Your task to perform on an android device: change alarm snooze length Image 0: 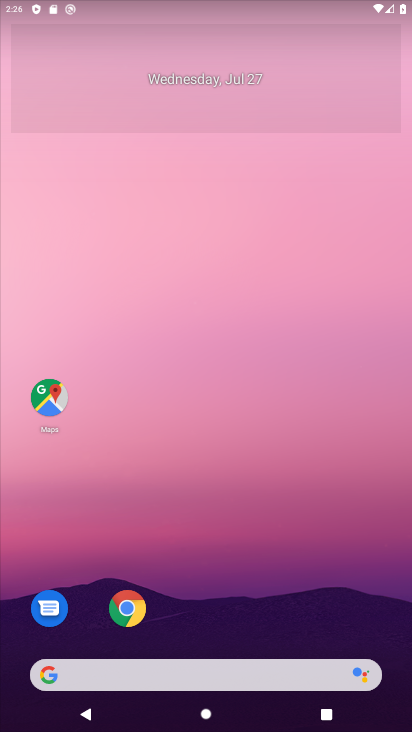
Step 0: drag from (276, 436) to (300, 72)
Your task to perform on an android device: change alarm snooze length Image 1: 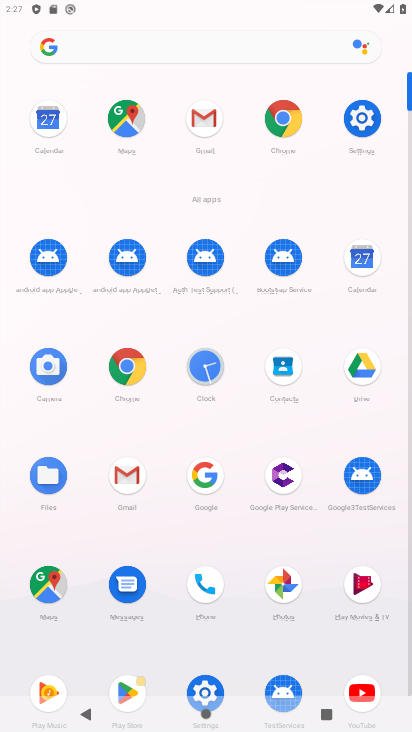
Step 1: click (130, 474)
Your task to perform on an android device: change alarm snooze length Image 2: 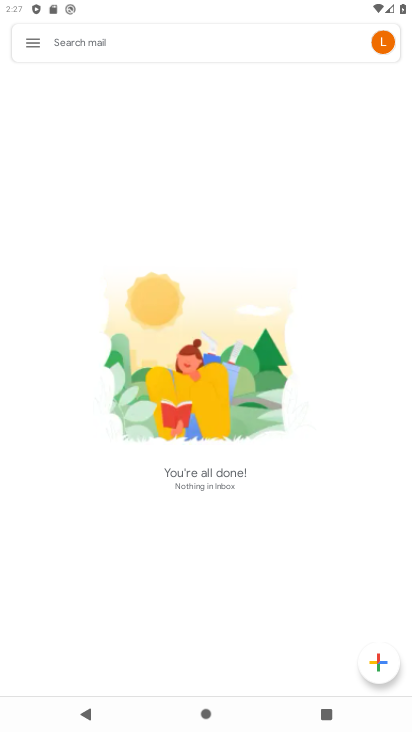
Step 2: click (41, 38)
Your task to perform on an android device: change alarm snooze length Image 3: 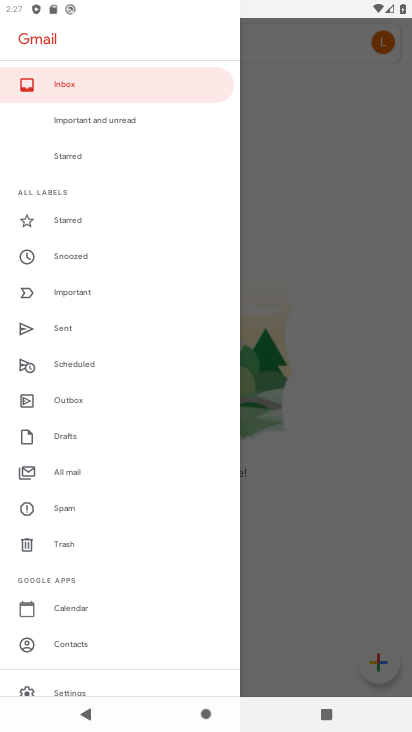
Step 3: press home button
Your task to perform on an android device: change alarm snooze length Image 4: 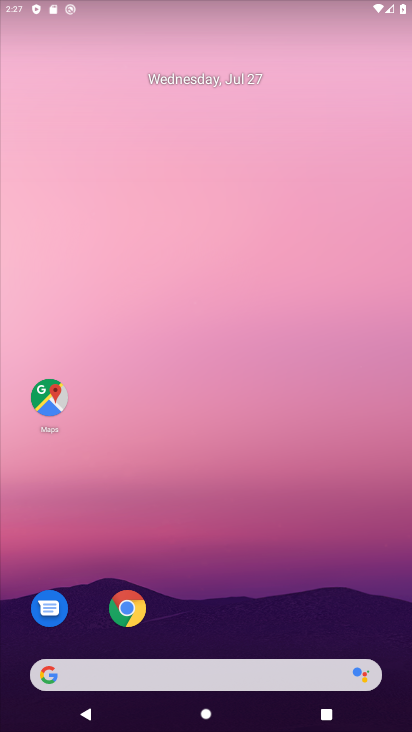
Step 4: drag from (257, 554) to (249, 116)
Your task to perform on an android device: change alarm snooze length Image 5: 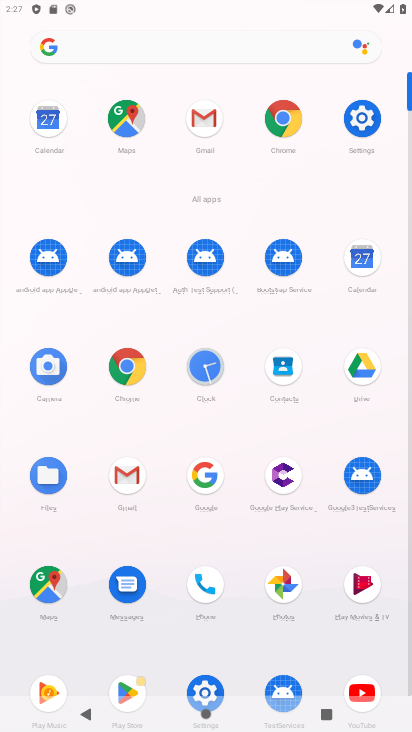
Step 5: click (212, 366)
Your task to perform on an android device: change alarm snooze length Image 6: 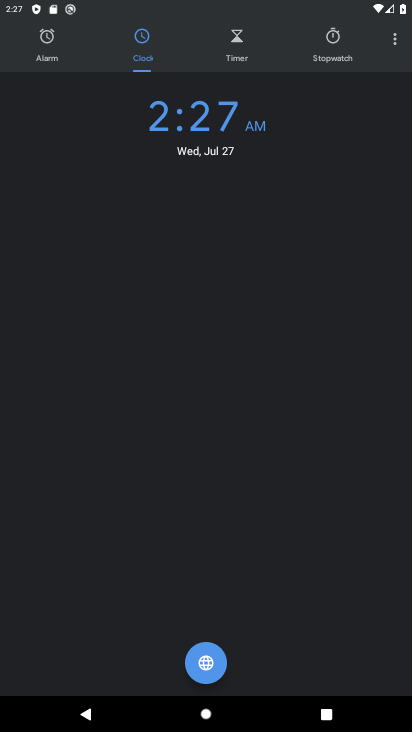
Step 6: click (396, 41)
Your task to perform on an android device: change alarm snooze length Image 7: 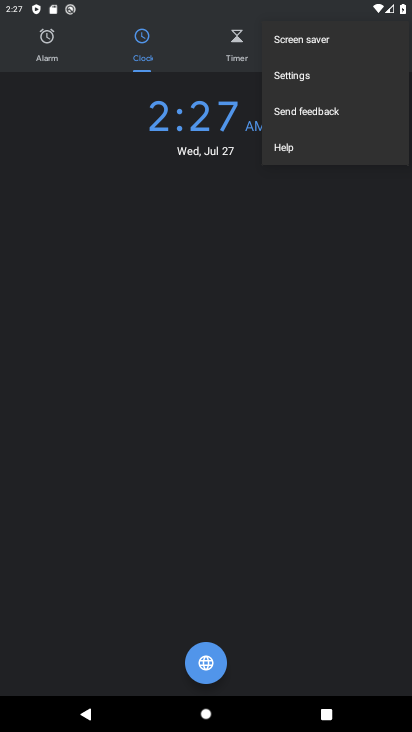
Step 7: click (293, 73)
Your task to perform on an android device: change alarm snooze length Image 8: 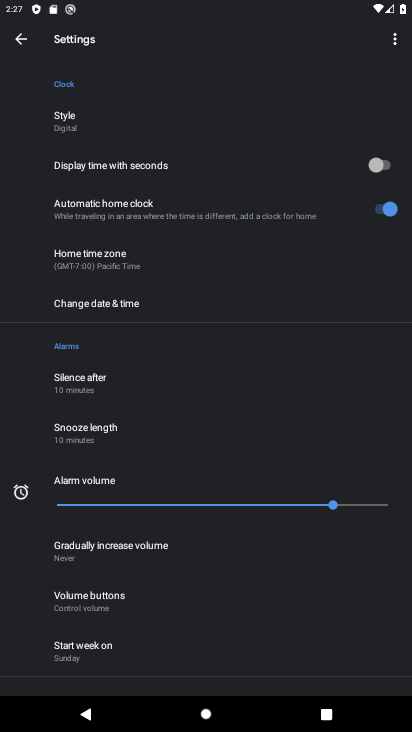
Step 8: click (81, 433)
Your task to perform on an android device: change alarm snooze length Image 9: 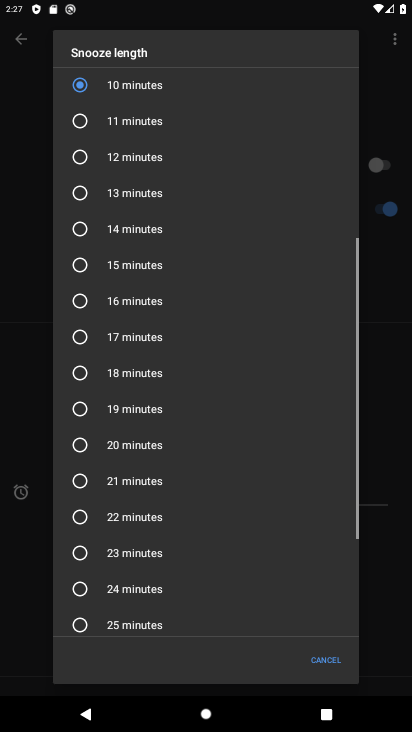
Step 9: click (86, 436)
Your task to perform on an android device: change alarm snooze length Image 10: 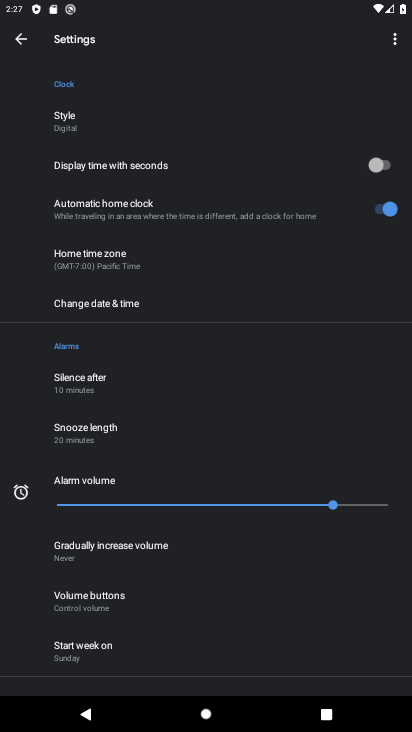
Step 10: task complete